Your task to perform on an android device: open chrome and create a bookmark for the current page Image 0: 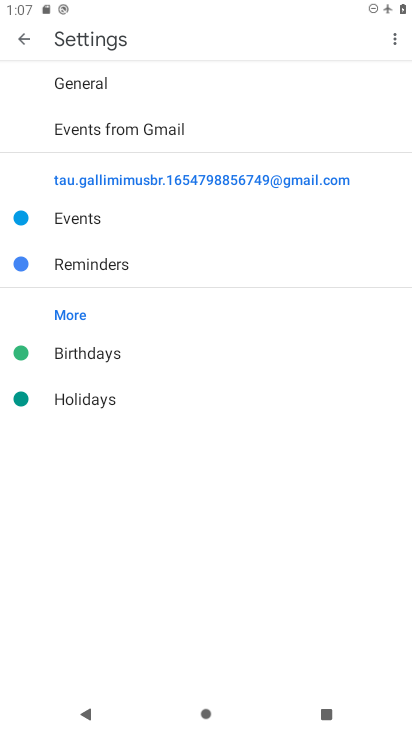
Step 0: press home button
Your task to perform on an android device: open chrome and create a bookmark for the current page Image 1: 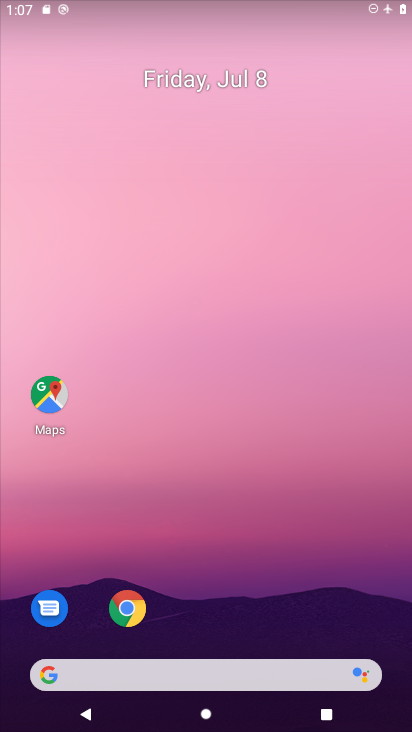
Step 1: drag from (216, 645) to (219, 177)
Your task to perform on an android device: open chrome and create a bookmark for the current page Image 2: 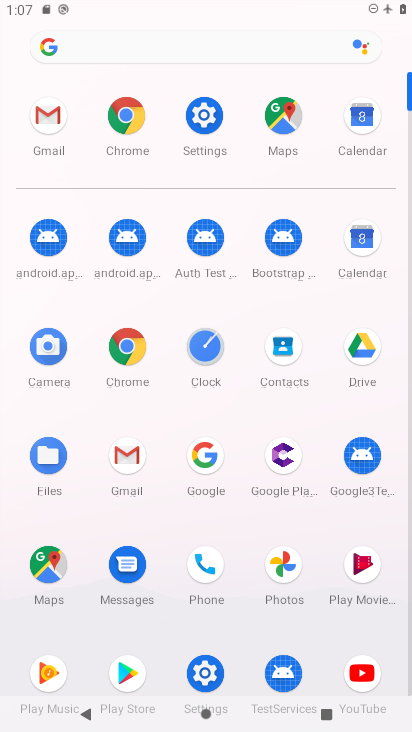
Step 2: click (121, 129)
Your task to perform on an android device: open chrome and create a bookmark for the current page Image 3: 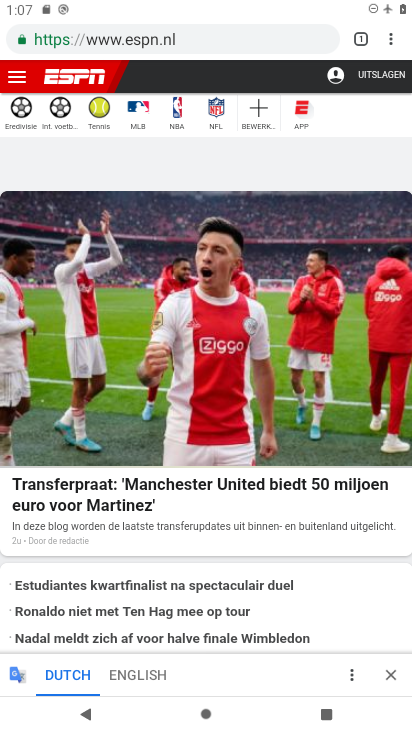
Step 3: click (385, 39)
Your task to perform on an android device: open chrome and create a bookmark for the current page Image 4: 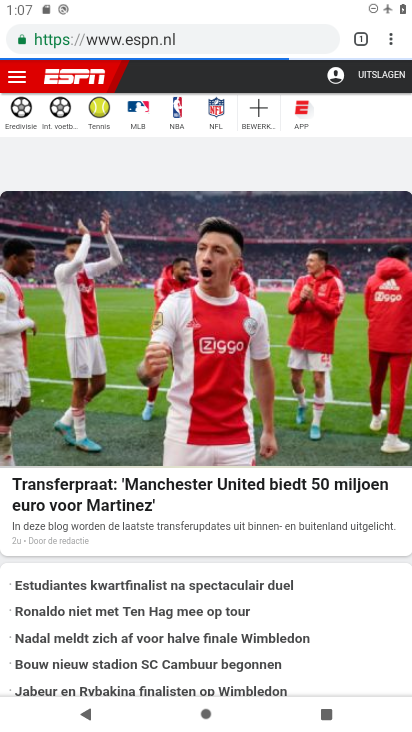
Step 4: click (384, 39)
Your task to perform on an android device: open chrome and create a bookmark for the current page Image 5: 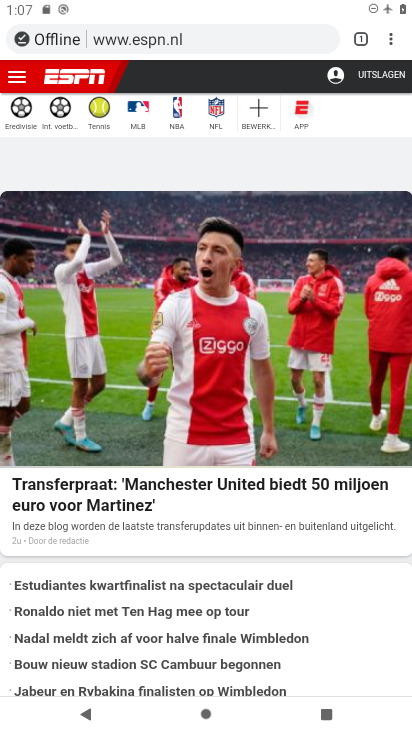
Step 5: click (398, 44)
Your task to perform on an android device: open chrome and create a bookmark for the current page Image 6: 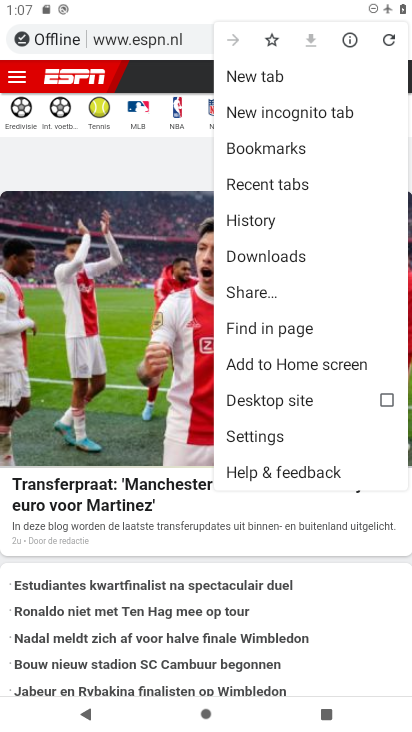
Step 6: click (271, 47)
Your task to perform on an android device: open chrome and create a bookmark for the current page Image 7: 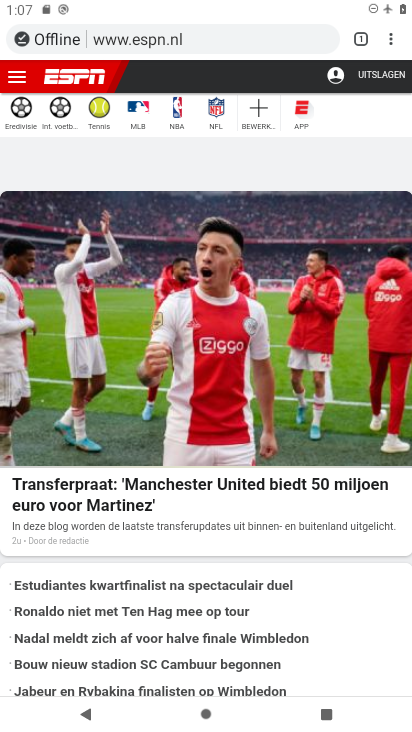
Step 7: task complete